Your task to perform on an android device: Open Google Maps Image 0: 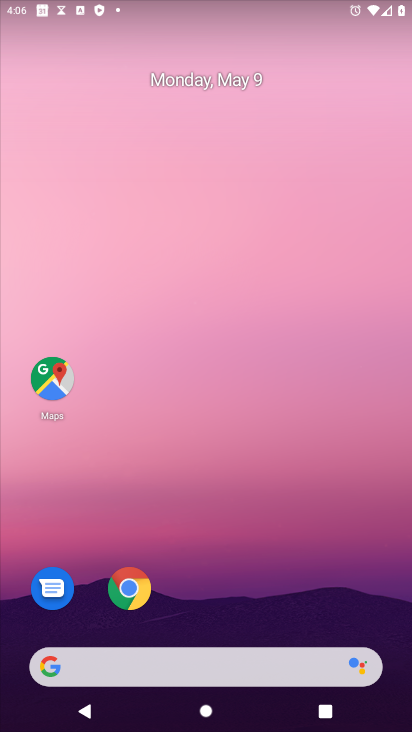
Step 0: click (56, 389)
Your task to perform on an android device: Open Google Maps Image 1: 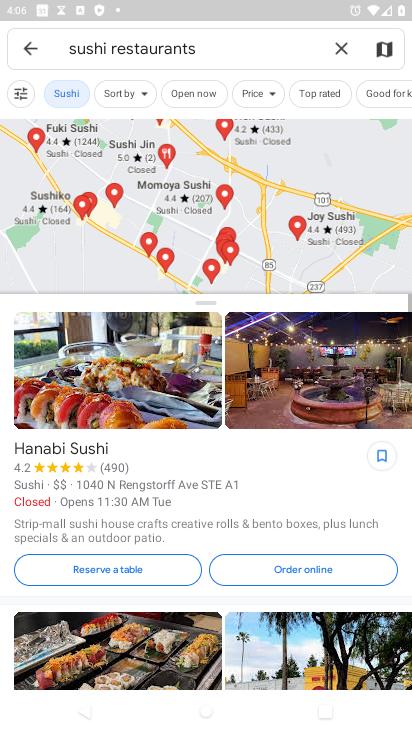
Step 1: task complete